Your task to perform on an android device: visit the assistant section in the google photos Image 0: 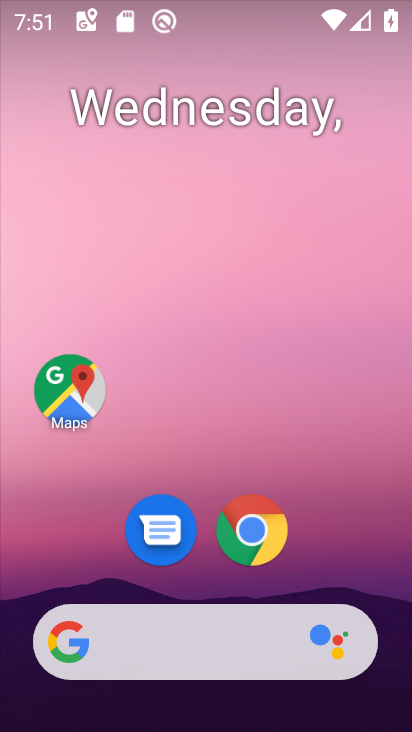
Step 0: drag from (387, 644) to (366, 36)
Your task to perform on an android device: visit the assistant section in the google photos Image 1: 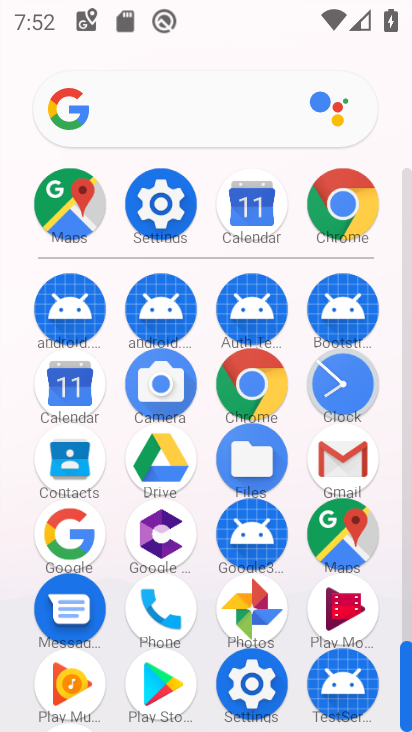
Step 1: click (267, 619)
Your task to perform on an android device: visit the assistant section in the google photos Image 2: 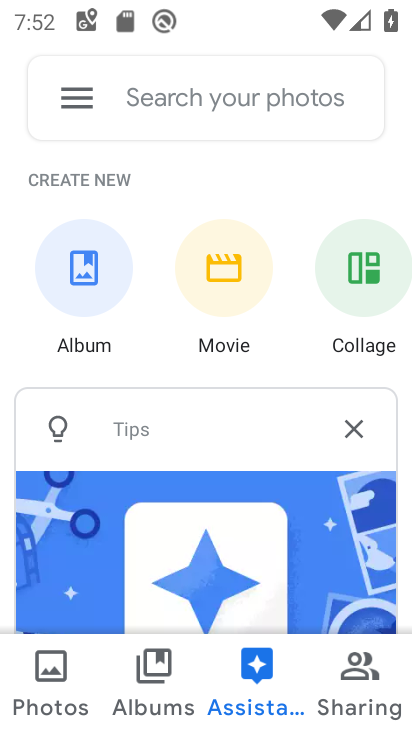
Step 2: task complete